Your task to perform on an android device: toggle data saver in the chrome app Image 0: 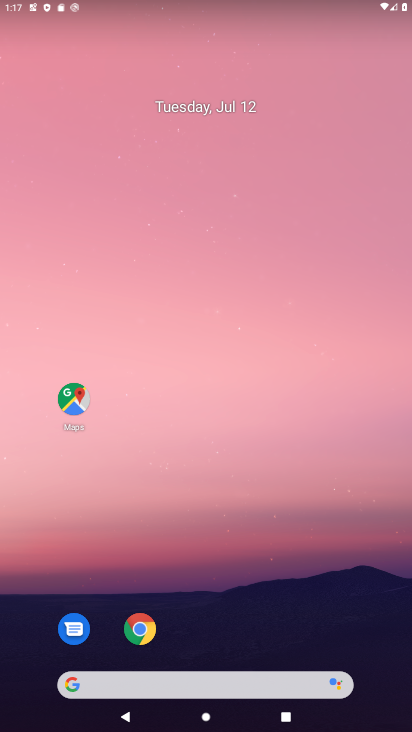
Step 0: click (146, 630)
Your task to perform on an android device: toggle data saver in the chrome app Image 1: 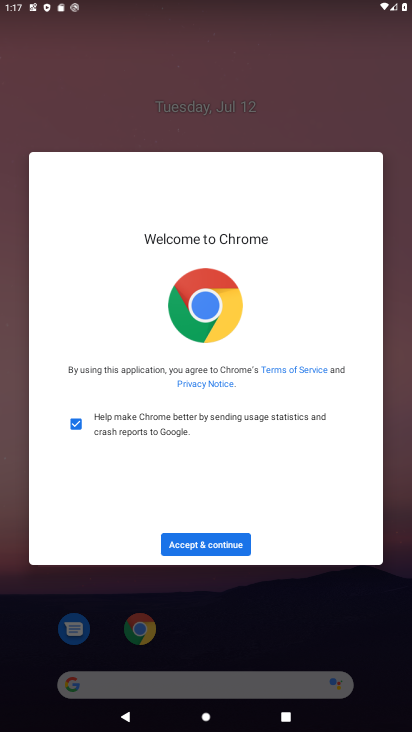
Step 1: click (198, 539)
Your task to perform on an android device: toggle data saver in the chrome app Image 2: 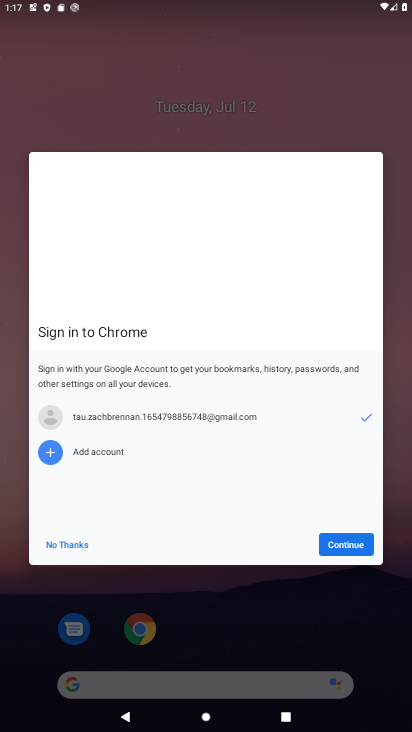
Step 2: click (342, 539)
Your task to perform on an android device: toggle data saver in the chrome app Image 3: 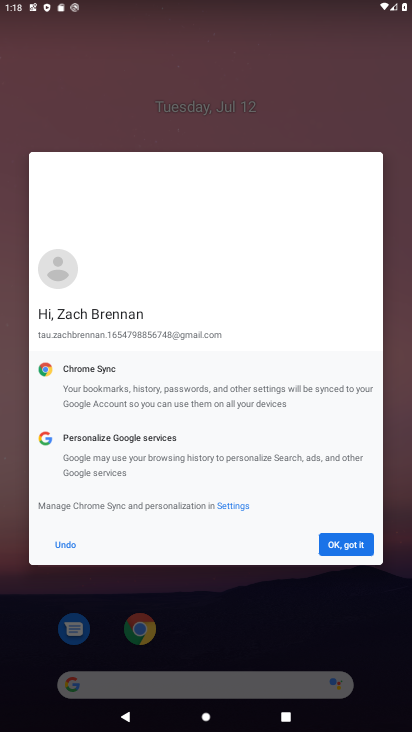
Step 3: click (342, 539)
Your task to perform on an android device: toggle data saver in the chrome app Image 4: 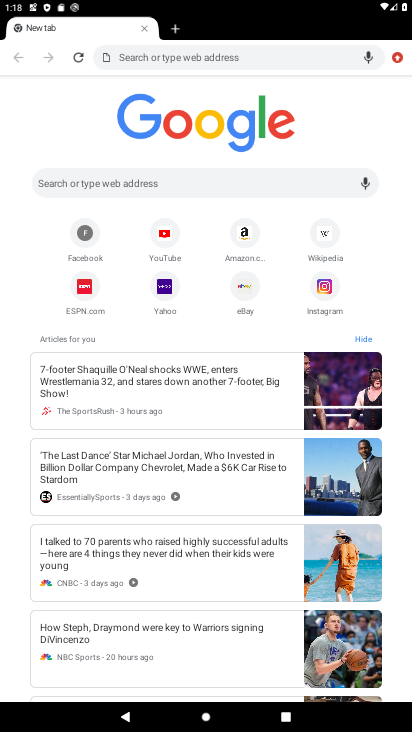
Step 4: click (398, 56)
Your task to perform on an android device: toggle data saver in the chrome app Image 5: 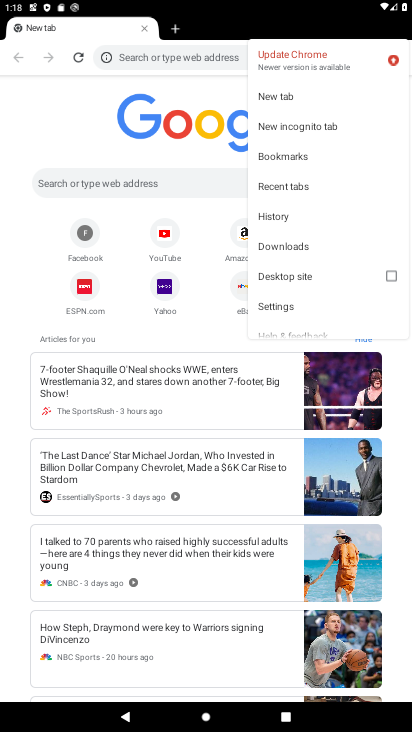
Step 5: click (277, 302)
Your task to perform on an android device: toggle data saver in the chrome app Image 6: 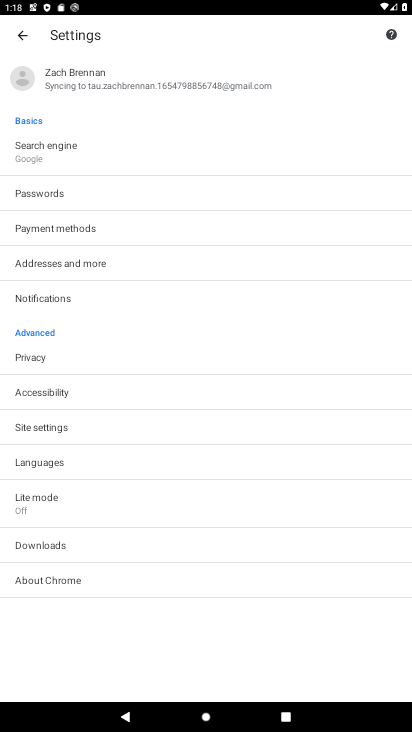
Step 6: click (69, 500)
Your task to perform on an android device: toggle data saver in the chrome app Image 7: 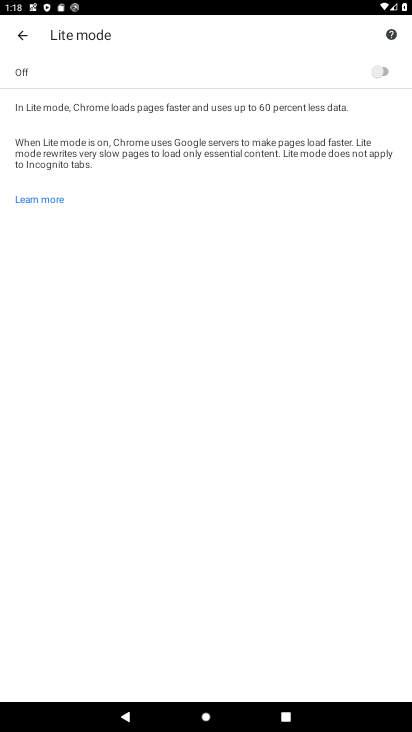
Step 7: click (391, 63)
Your task to perform on an android device: toggle data saver in the chrome app Image 8: 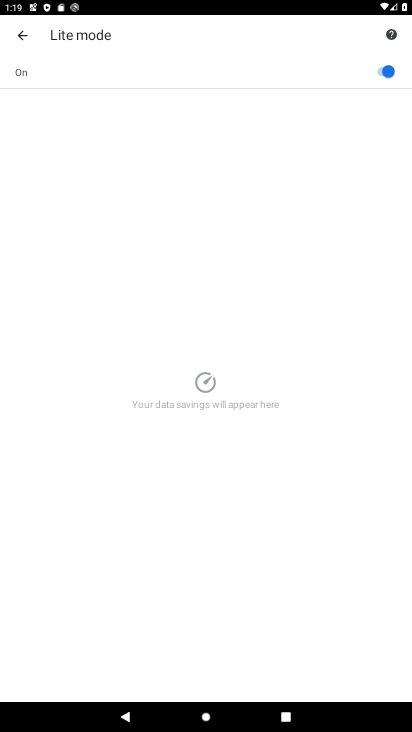
Step 8: task complete